Your task to perform on an android device: change text size in settings app Image 0: 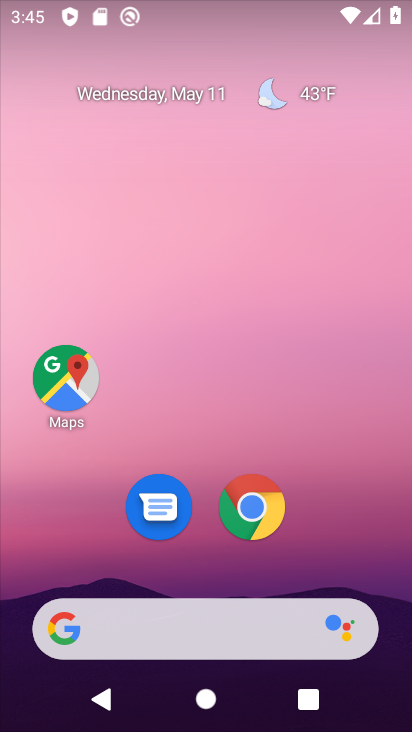
Step 0: drag from (398, 631) to (324, 45)
Your task to perform on an android device: change text size in settings app Image 1: 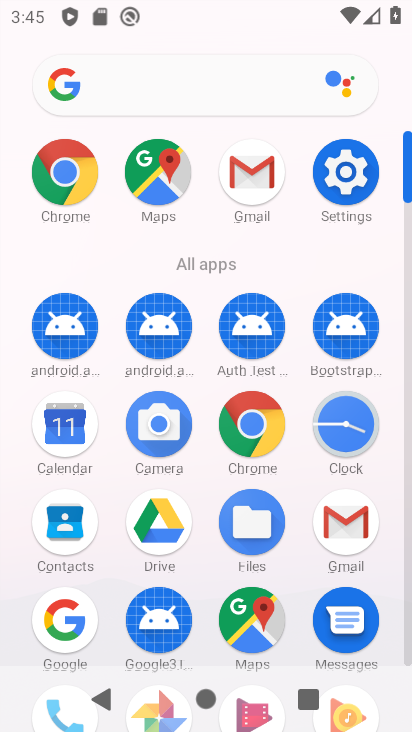
Step 1: click (408, 655)
Your task to perform on an android device: change text size in settings app Image 2: 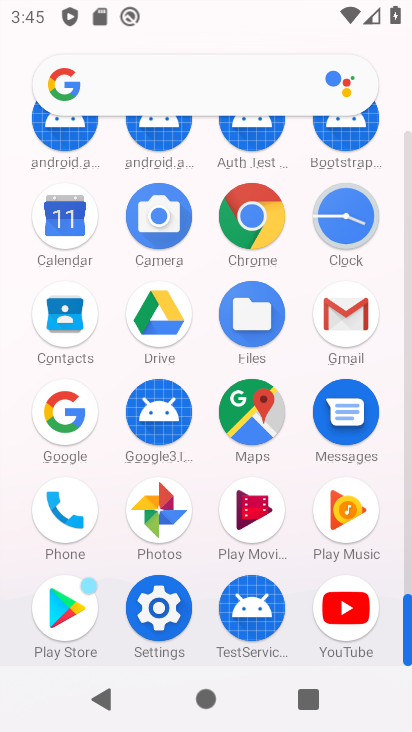
Step 2: click (157, 606)
Your task to perform on an android device: change text size in settings app Image 3: 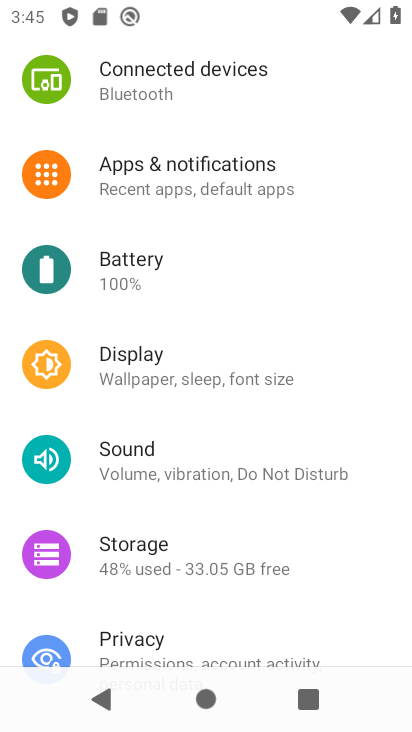
Step 3: click (144, 361)
Your task to perform on an android device: change text size in settings app Image 4: 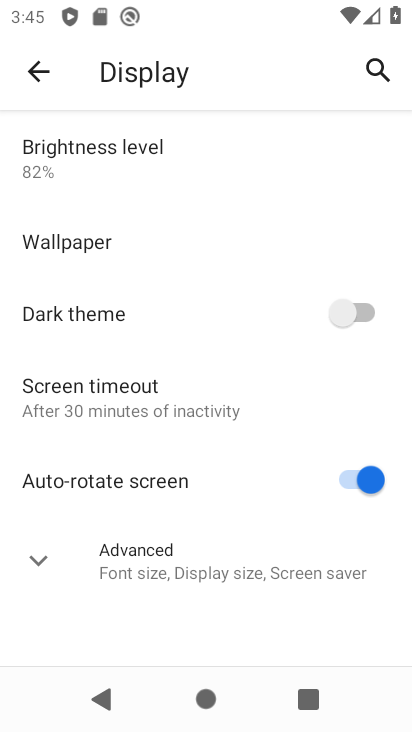
Step 4: click (34, 557)
Your task to perform on an android device: change text size in settings app Image 5: 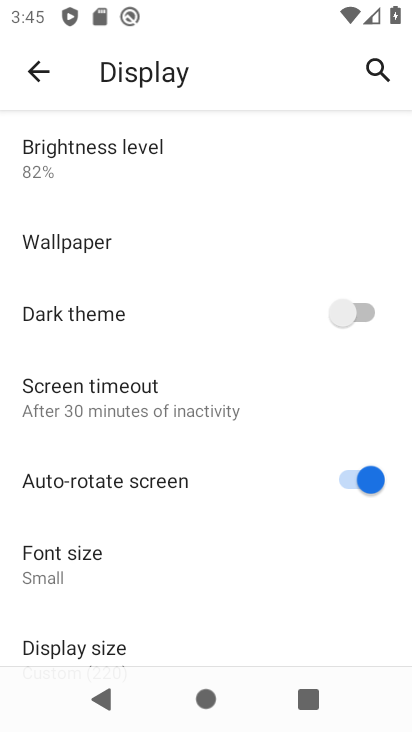
Step 5: click (34, 571)
Your task to perform on an android device: change text size in settings app Image 6: 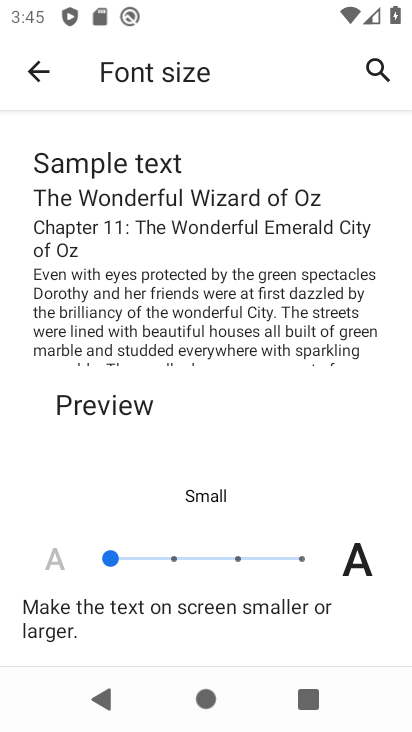
Step 6: drag from (225, 592) to (245, 404)
Your task to perform on an android device: change text size in settings app Image 7: 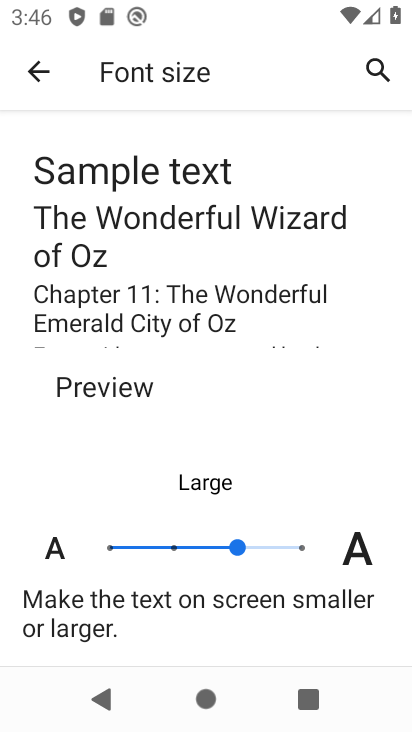
Step 7: click (172, 546)
Your task to perform on an android device: change text size in settings app Image 8: 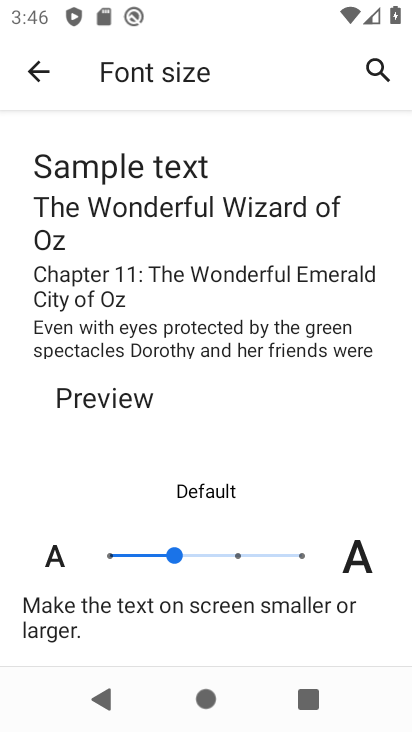
Step 8: task complete